Your task to perform on an android device: Open calendar and show me the fourth week of next month Image 0: 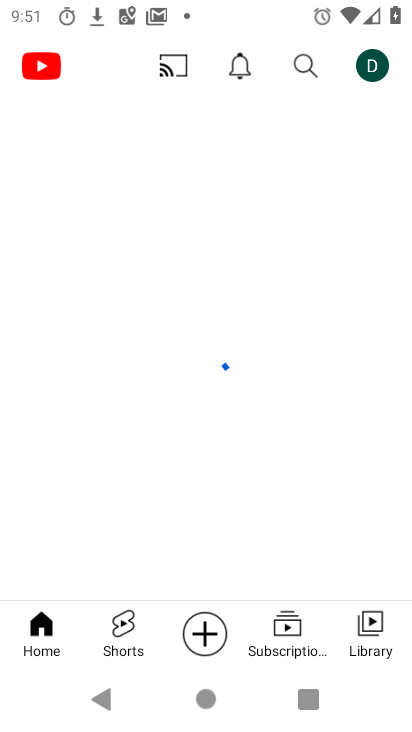
Step 0: press home button
Your task to perform on an android device: Open calendar and show me the fourth week of next month Image 1: 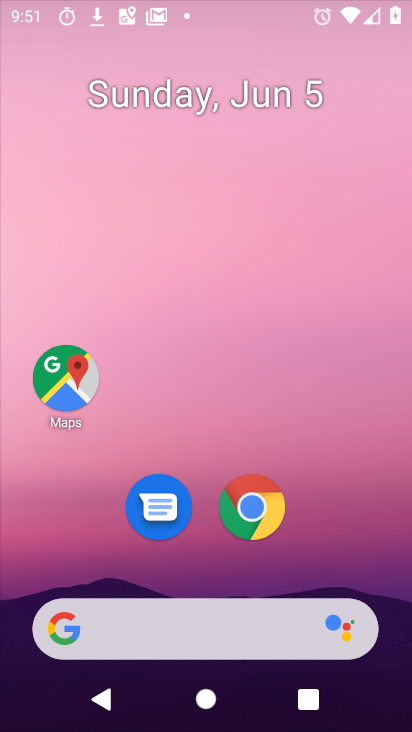
Step 1: drag from (291, 644) to (129, 148)
Your task to perform on an android device: Open calendar and show me the fourth week of next month Image 2: 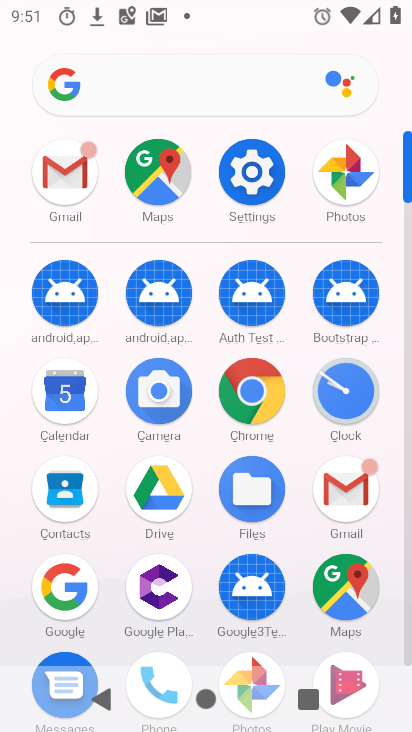
Step 2: click (48, 417)
Your task to perform on an android device: Open calendar and show me the fourth week of next month Image 3: 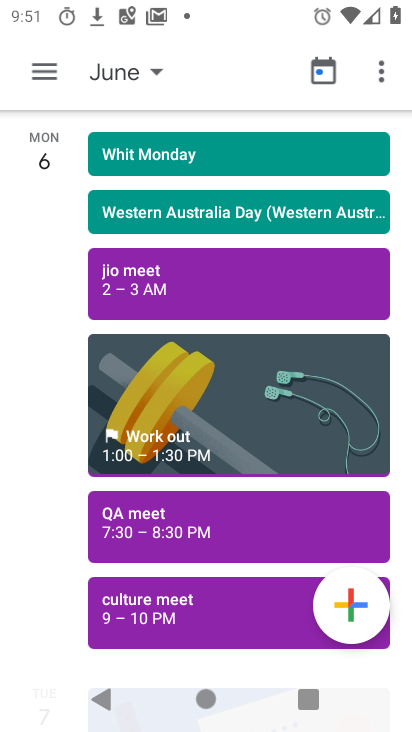
Step 3: click (17, 75)
Your task to perform on an android device: Open calendar and show me the fourth week of next month Image 4: 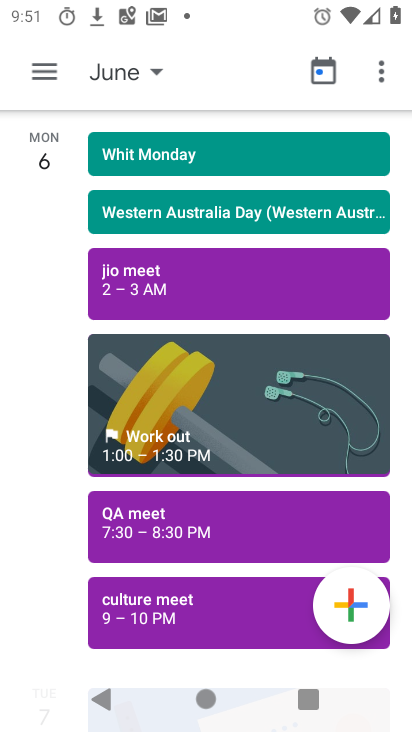
Step 4: click (55, 59)
Your task to perform on an android device: Open calendar and show me the fourth week of next month Image 5: 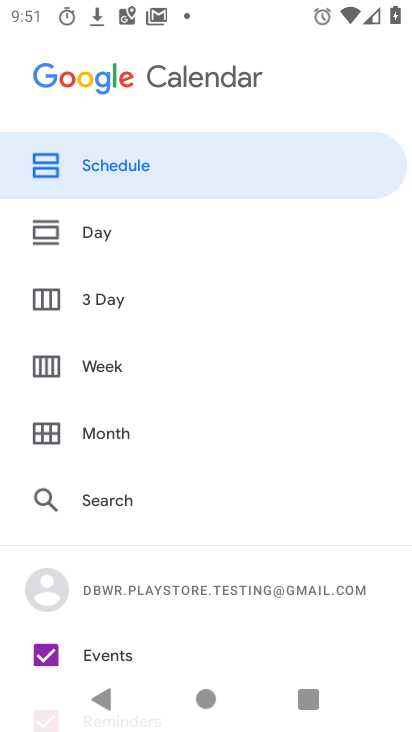
Step 5: click (137, 435)
Your task to perform on an android device: Open calendar and show me the fourth week of next month Image 6: 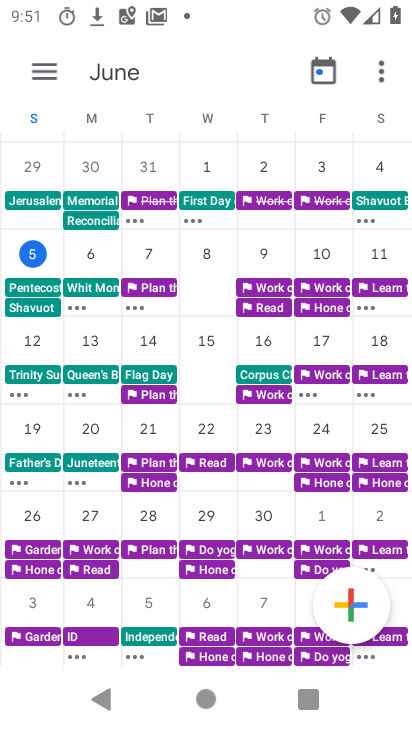
Step 6: drag from (268, 411) to (2, 314)
Your task to perform on an android device: Open calendar and show me the fourth week of next month Image 7: 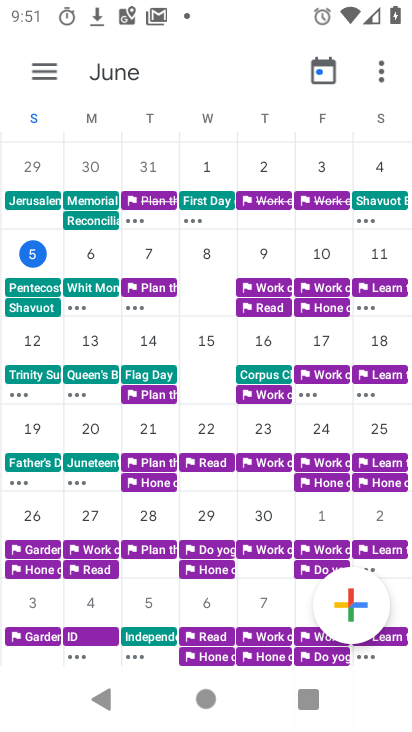
Step 7: drag from (370, 353) to (9, 277)
Your task to perform on an android device: Open calendar and show me the fourth week of next month Image 8: 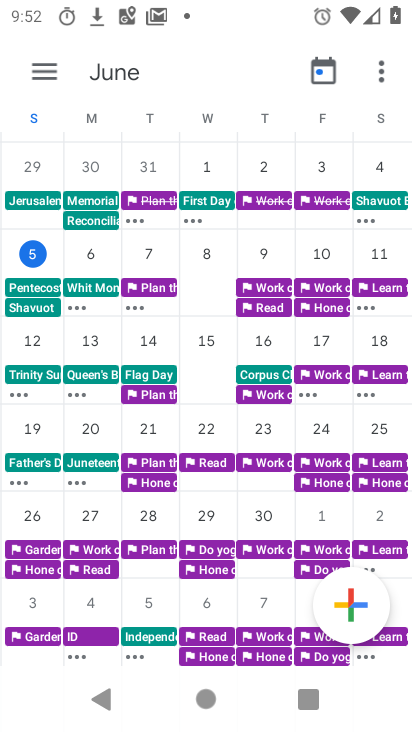
Step 8: click (90, 520)
Your task to perform on an android device: Open calendar and show me the fourth week of next month Image 9: 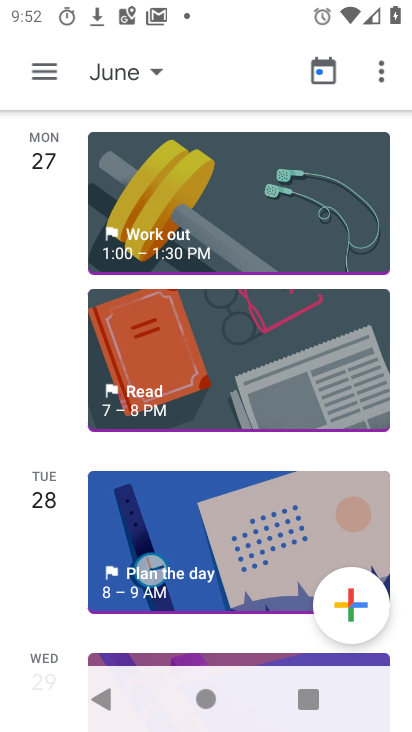
Step 9: task complete